Your task to perform on an android device: Go to Maps Image 0: 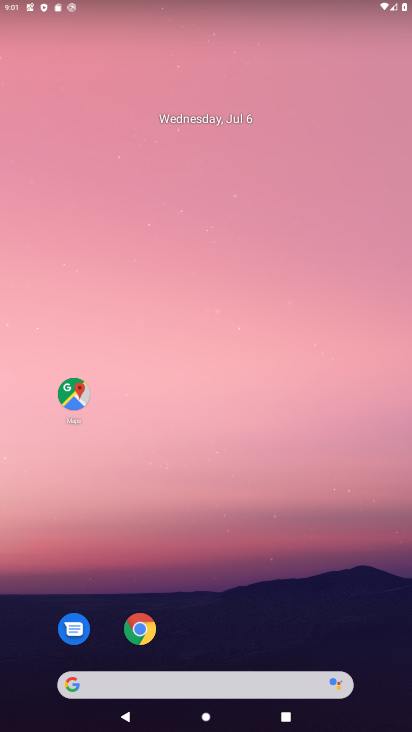
Step 0: drag from (338, 693) to (329, 2)
Your task to perform on an android device: Go to Maps Image 1: 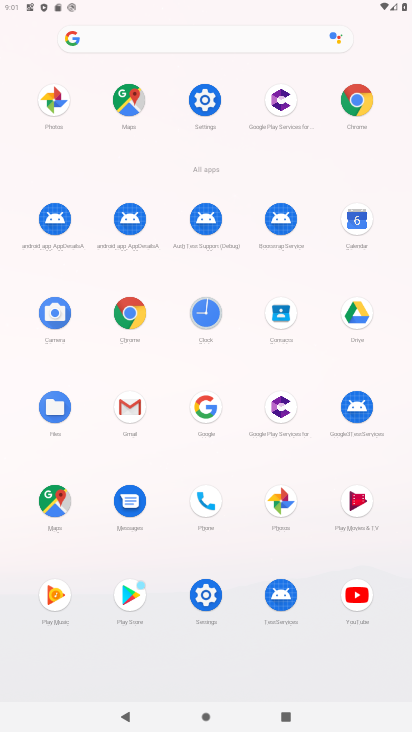
Step 1: click (38, 500)
Your task to perform on an android device: Go to Maps Image 2: 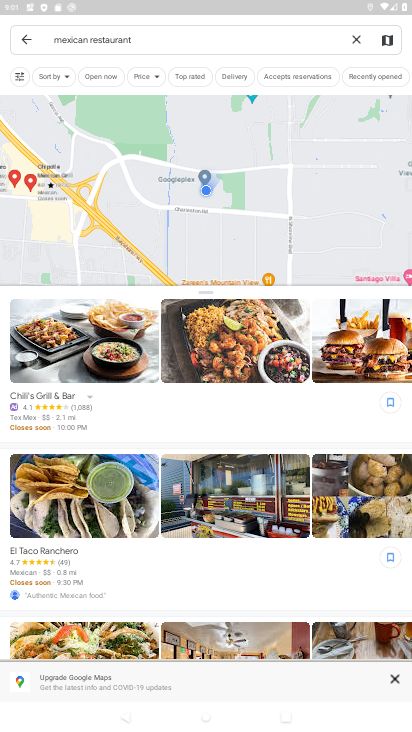
Step 2: task complete